Your task to perform on an android device: change the clock display to digital Image 0: 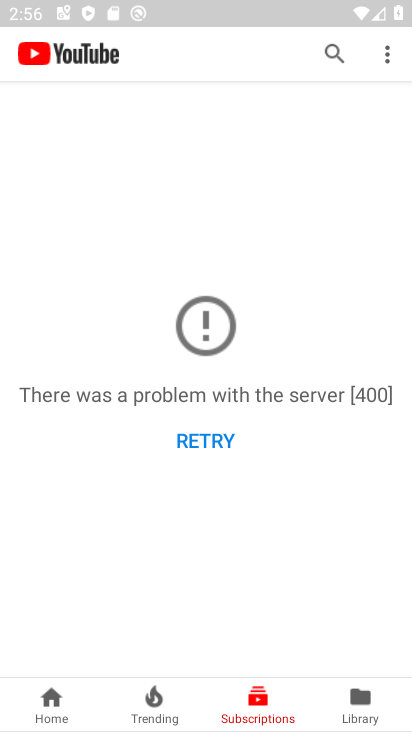
Step 0: press back button
Your task to perform on an android device: change the clock display to digital Image 1: 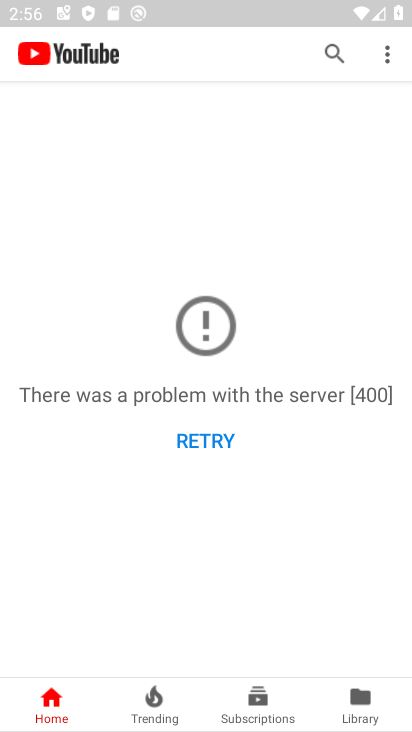
Step 1: press back button
Your task to perform on an android device: change the clock display to digital Image 2: 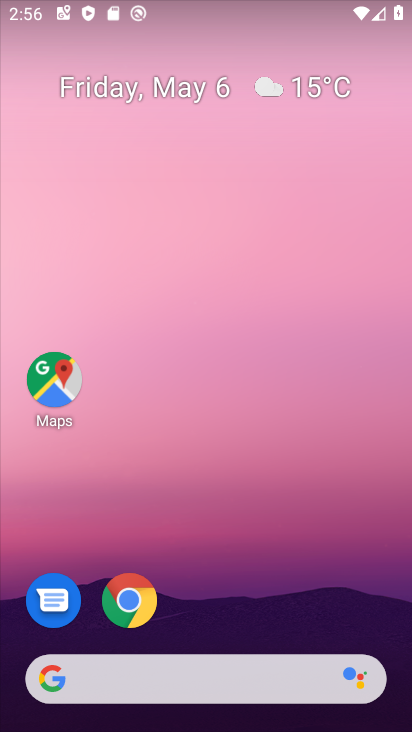
Step 2: drag from (245, 577) to (227, 10)
Your task to perform on an android device: change the clock display to digital Image 3: 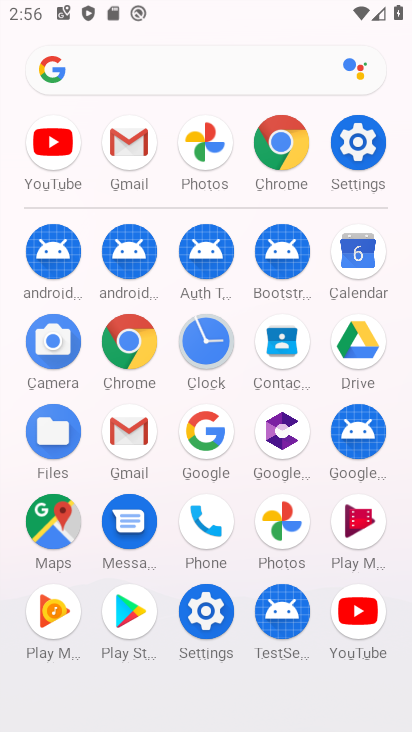
Step 3: drag from (10, 595) to (7, 357)
Your task to perform on an android device: change the clock display to digital Image 4: 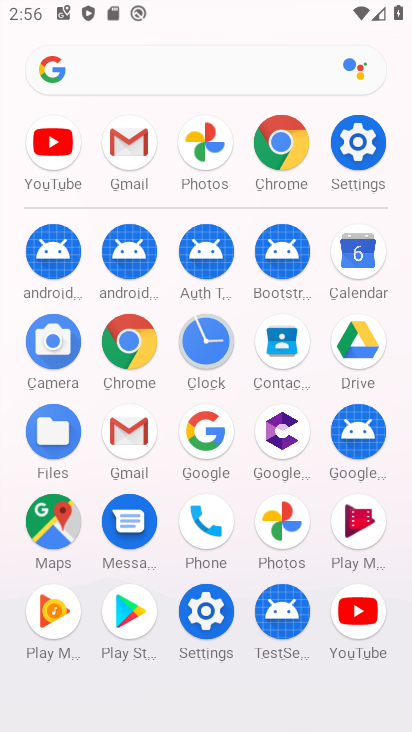
Step 4: click (204, 341)
Your task to perform on an android device: change the clock display to digital Image 5: 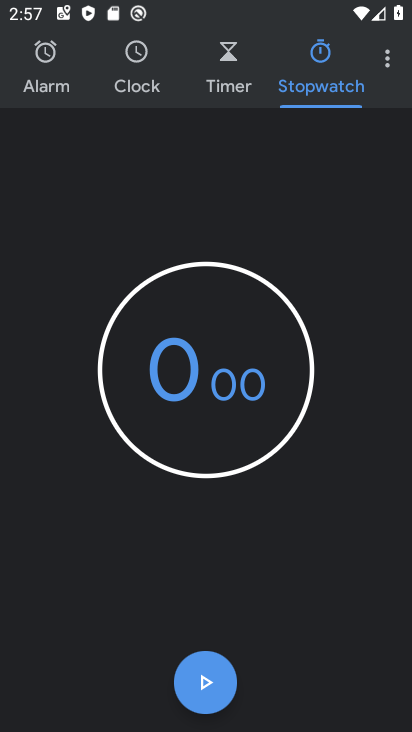
Step 5: click (379, 59)
Your task to perform on an android device: change the clock display to digital Image 6: 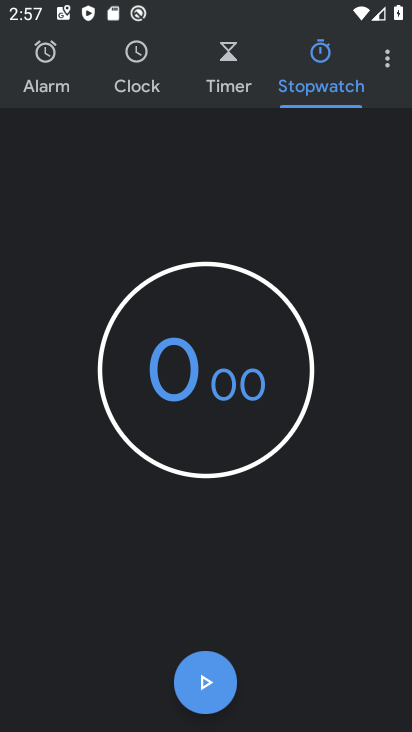
Step 6: click (389, 56)
Your task to perform on an android device: change the clock display to digital Image 7: 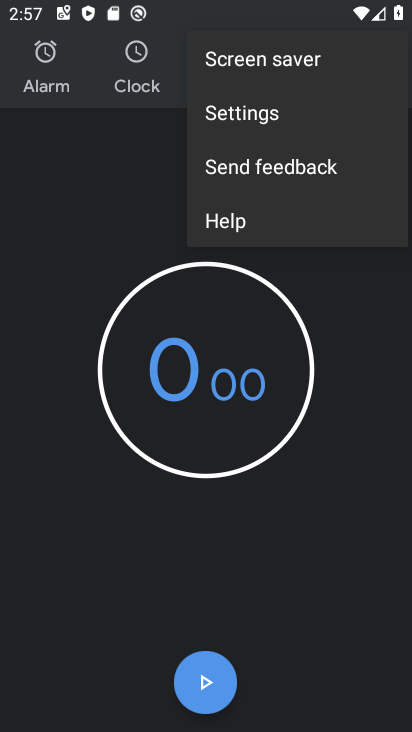
Step 7: click (257, 119)
Your task to perform on an android device: change the clock display to digital Image 8: 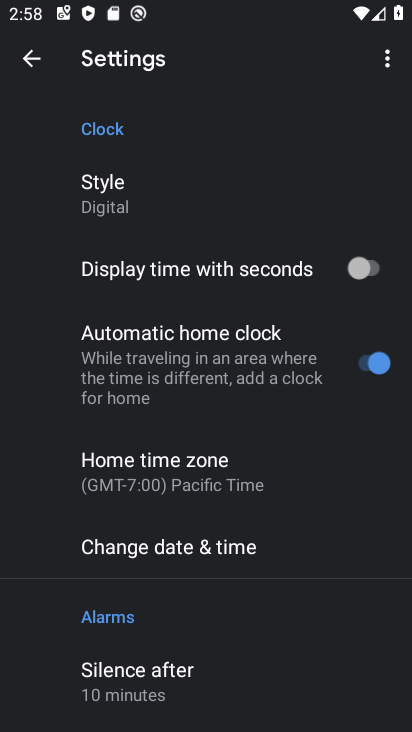
Step 8: task complete